Your task to perform on an android device: Open calendar and show me the second week of next month Image 0: 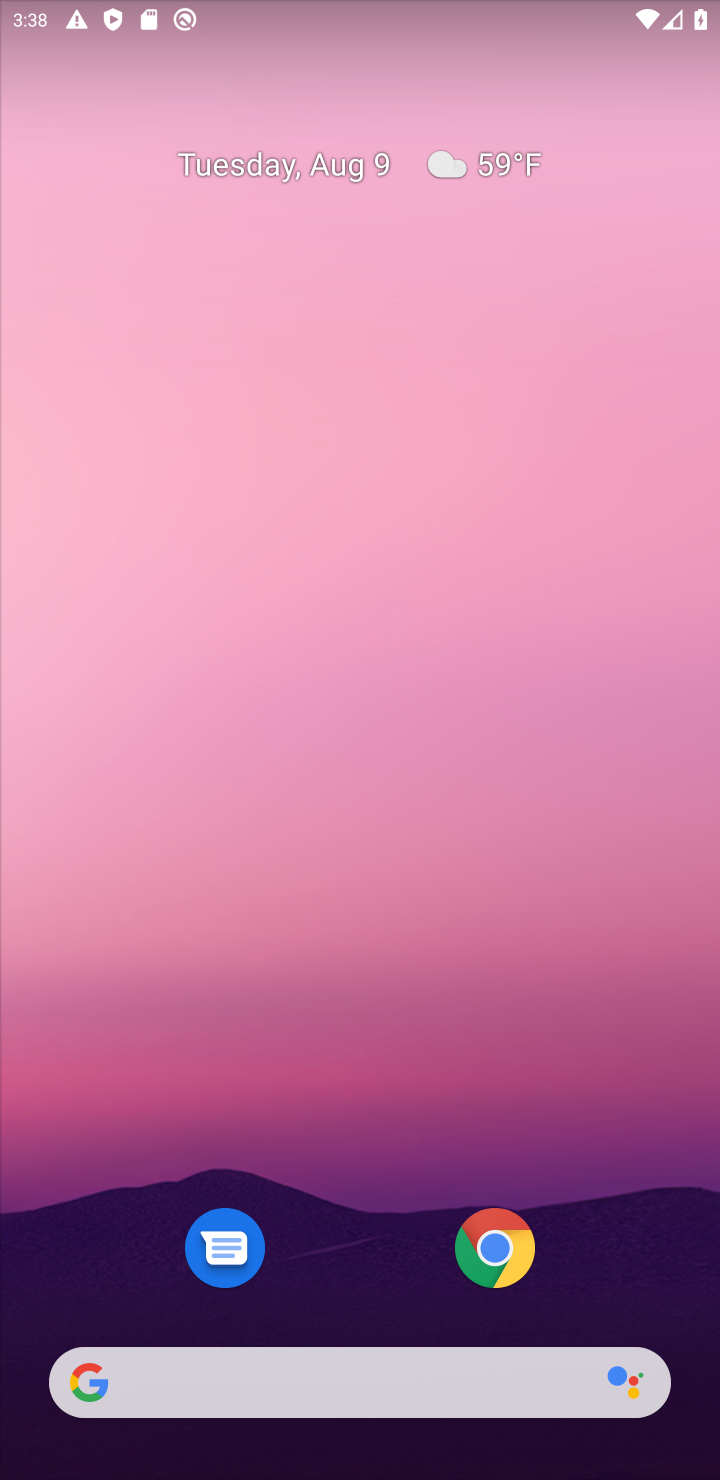
Step 0: drag from (361, 1152) to (231, 122)
Your task to perform on an android device: Open calendar and show me the second week of next month Image 1: 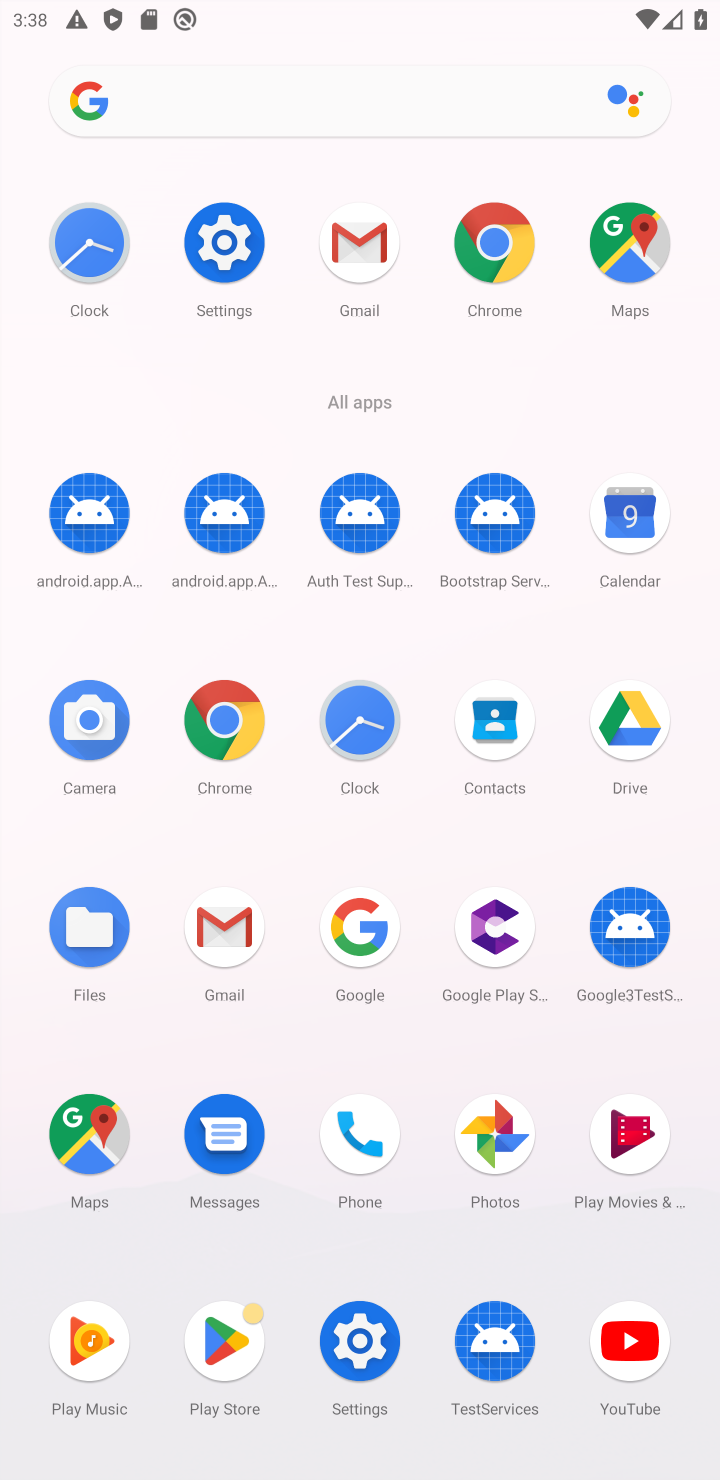
Step 1: click (637, 516)
Your task to perform on an android device: Open calendar and show me the second week of next month Image 2: 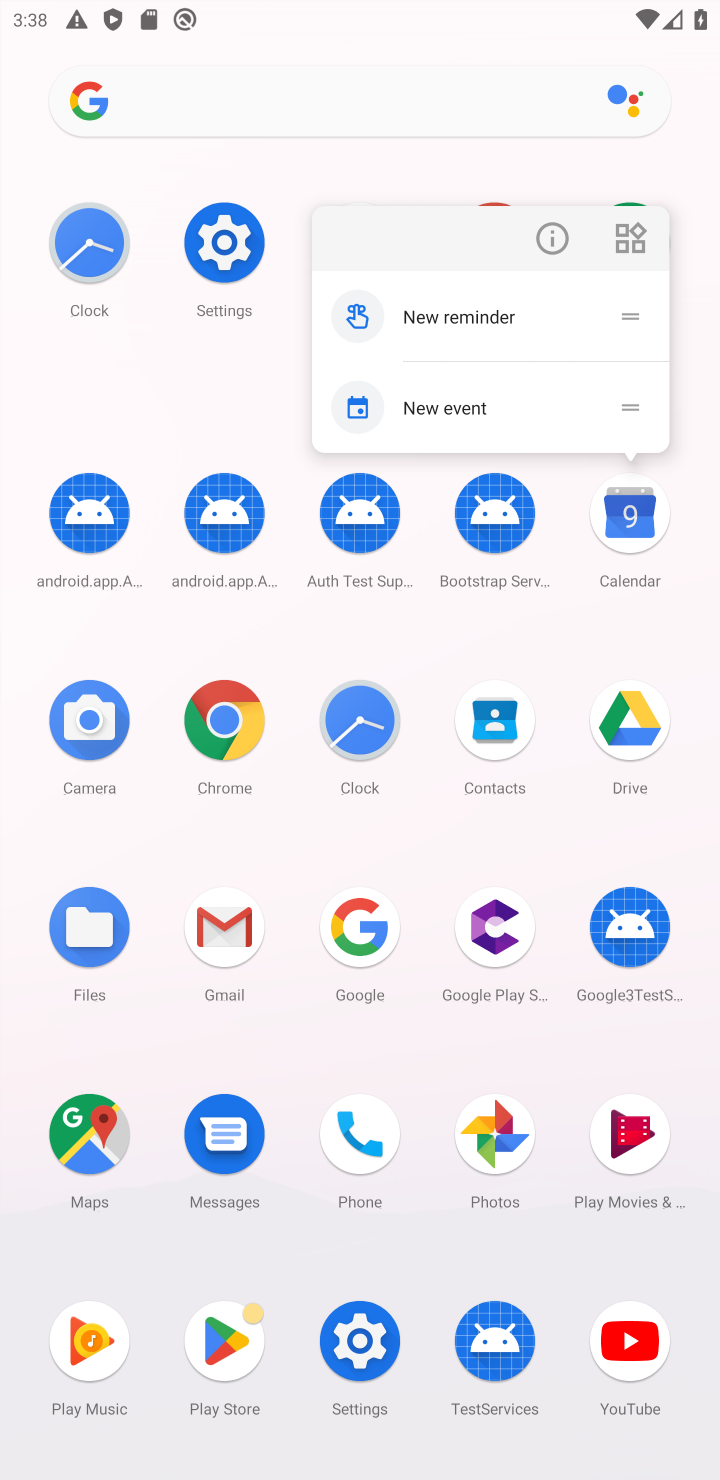
Step 2: click (637, 516)
Your task to perform on an android device: Open calendar and show me the second week of next month Image 3: 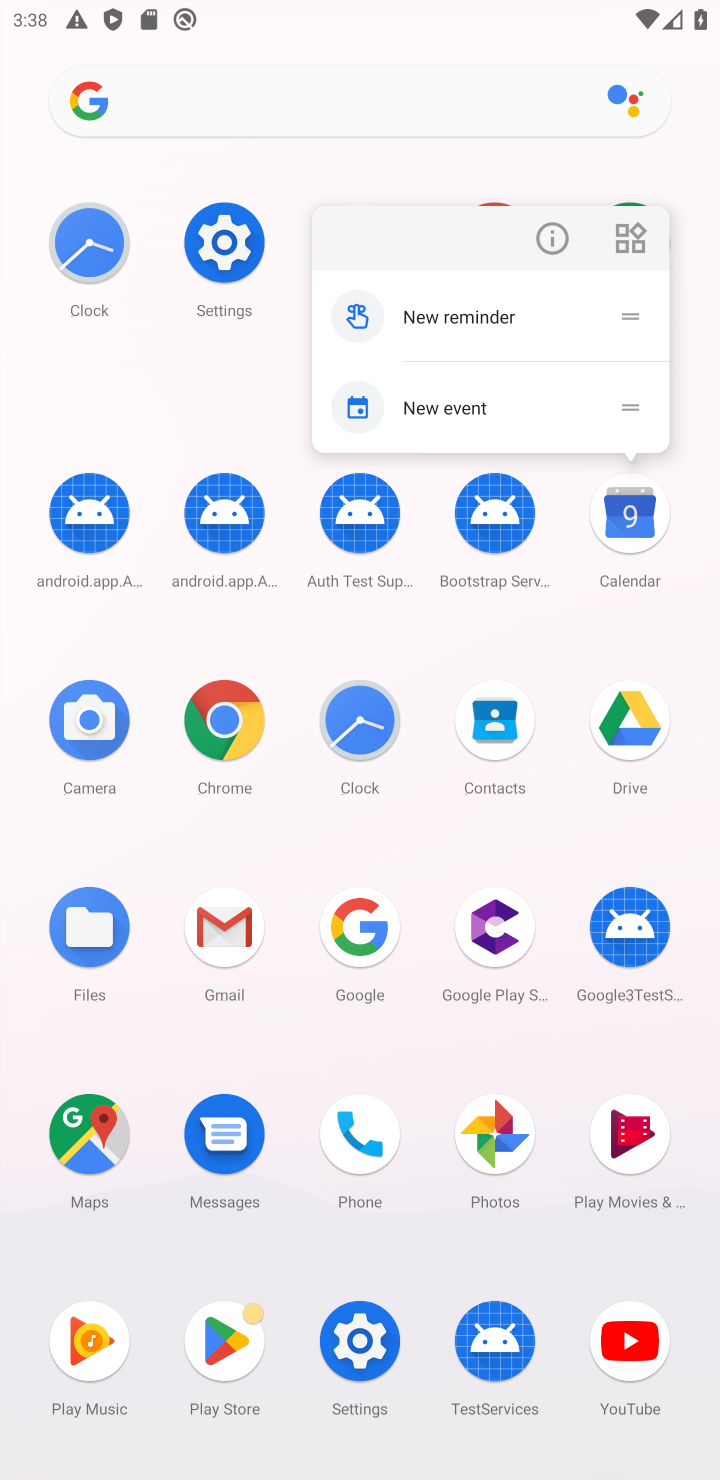
Step 3: click (637, 535)
Your task to perform on an android device: Open calendar and show me the second week of next month Image 4: 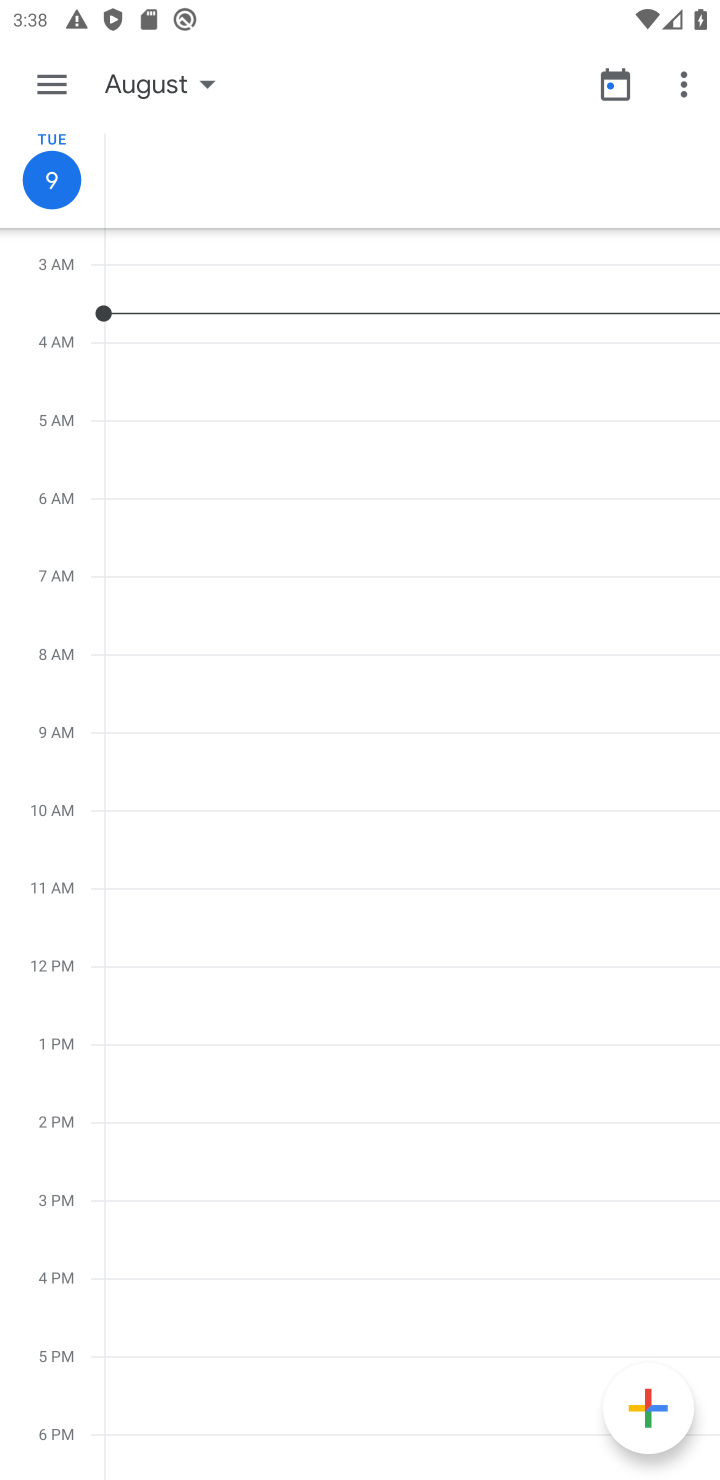
Step 4: click (169, 80)
Your task to perform on an android device: Open calendar and show me the second week of next month Image 5: 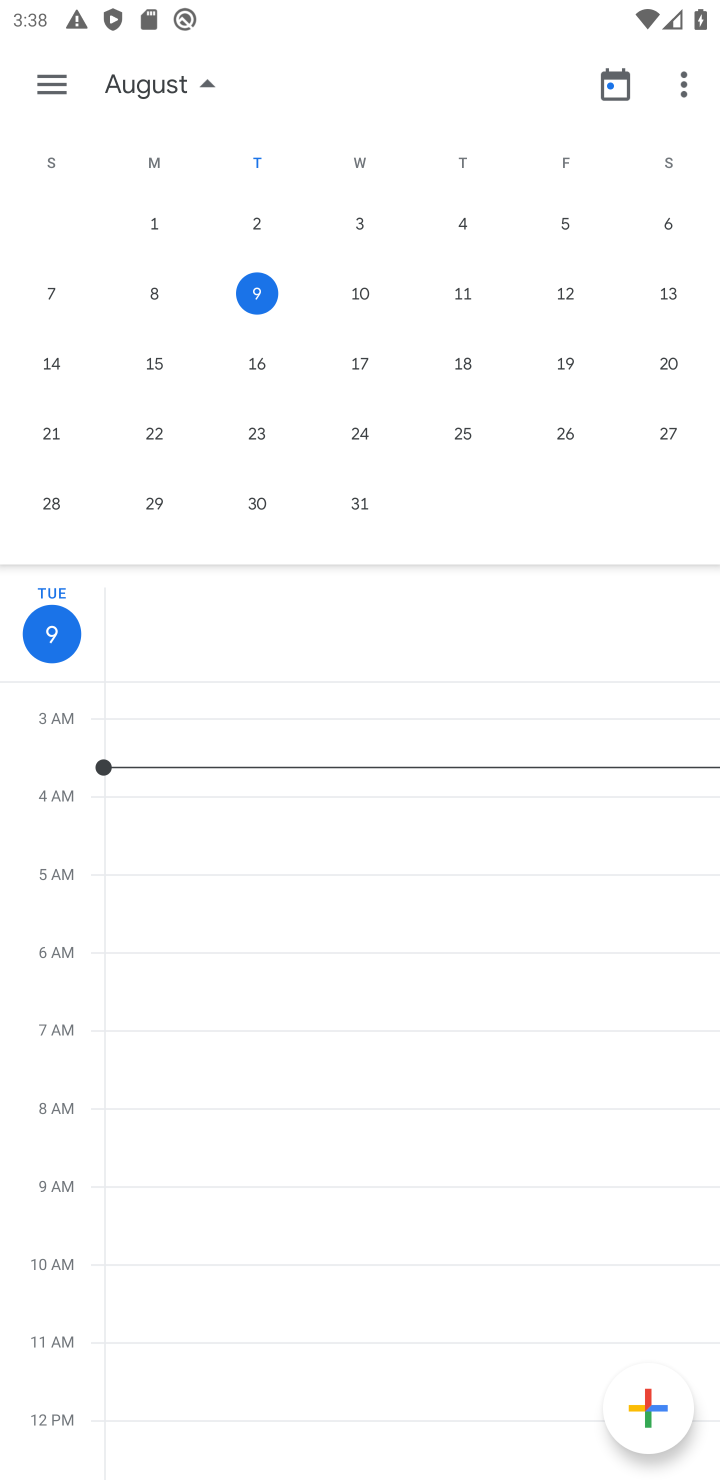
Step 5: drag from (620, 369) to (7, 369)
Your task to perform on an android device: Open calendar and show me the second week of next month Image 6: 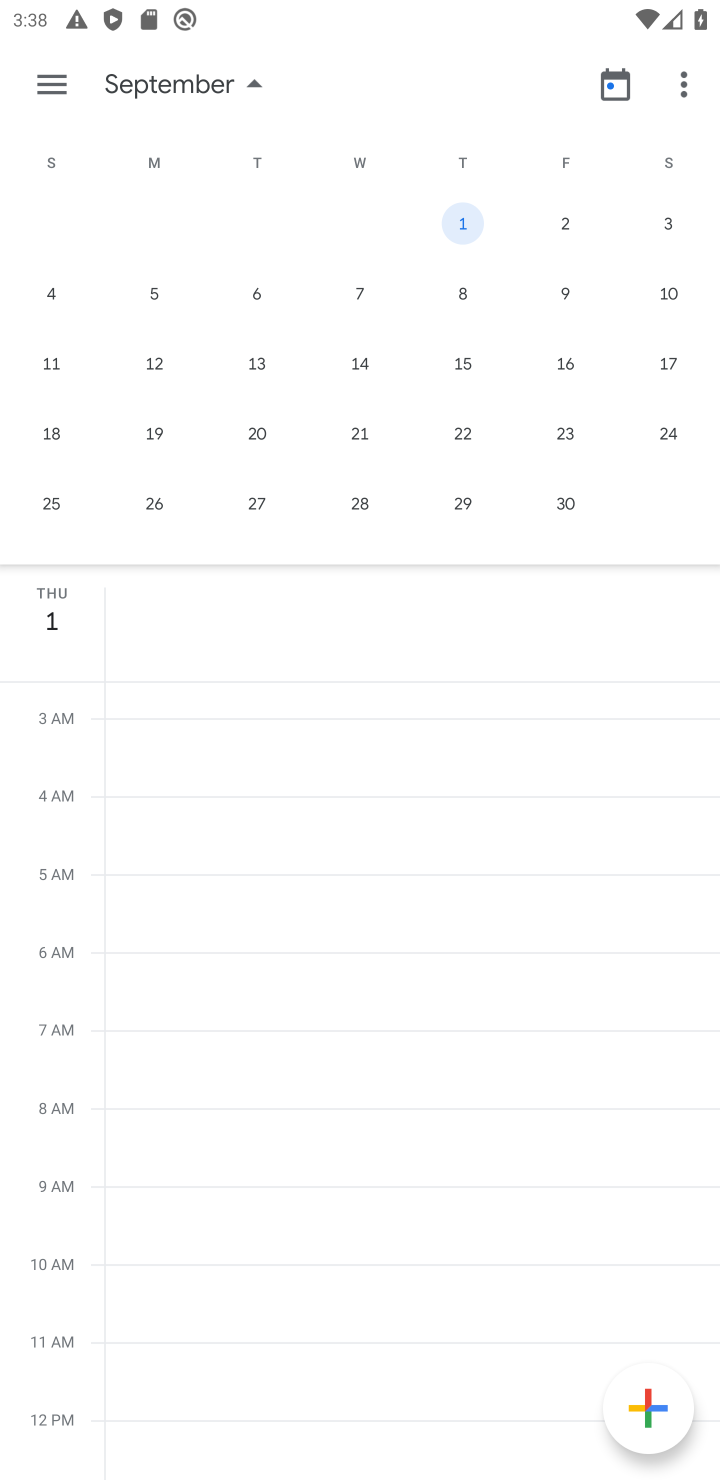
Step 6: click (257, 360)
Your task to perform on an android device: Open calendar and show me the second week of next month Image 7: 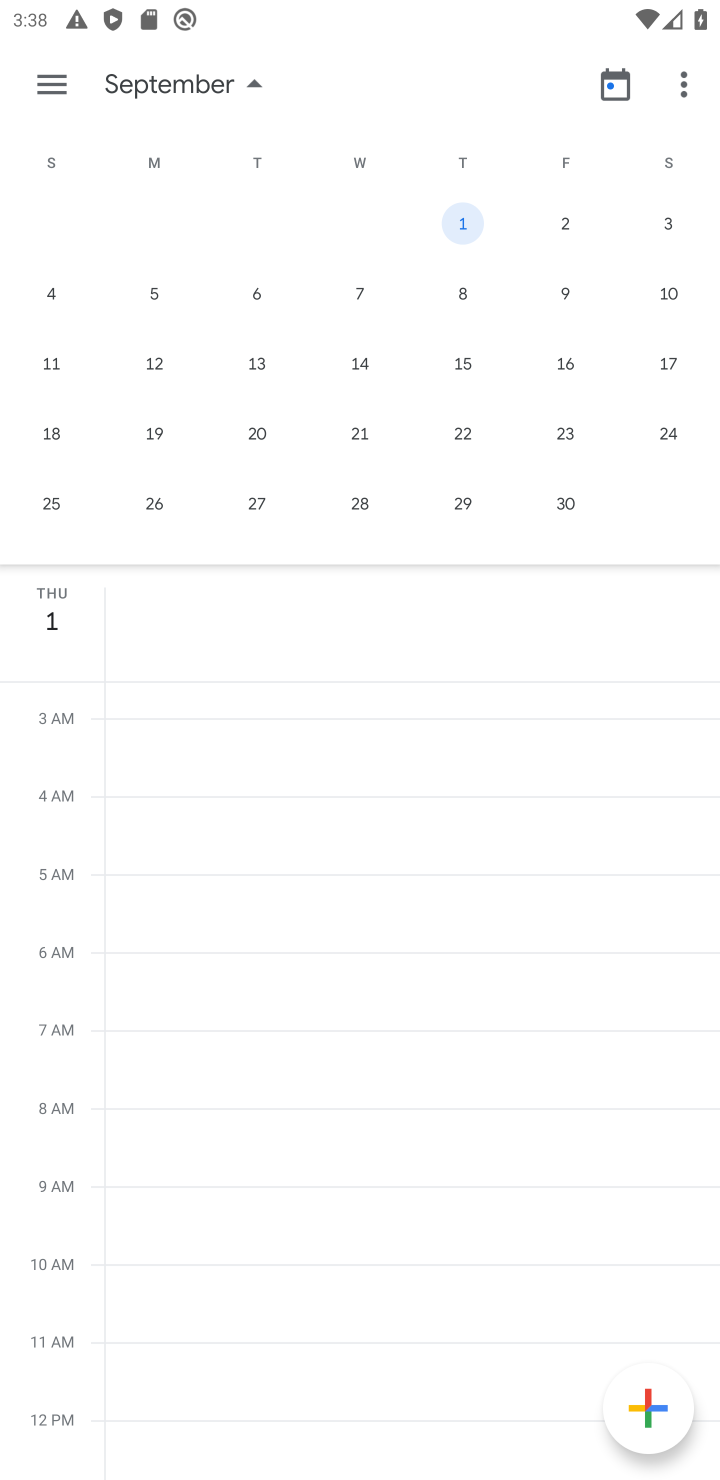
Step 7: click (259, 347)
Your task to perform on an android device: Open calendar and show me the second week of next month Image 8: 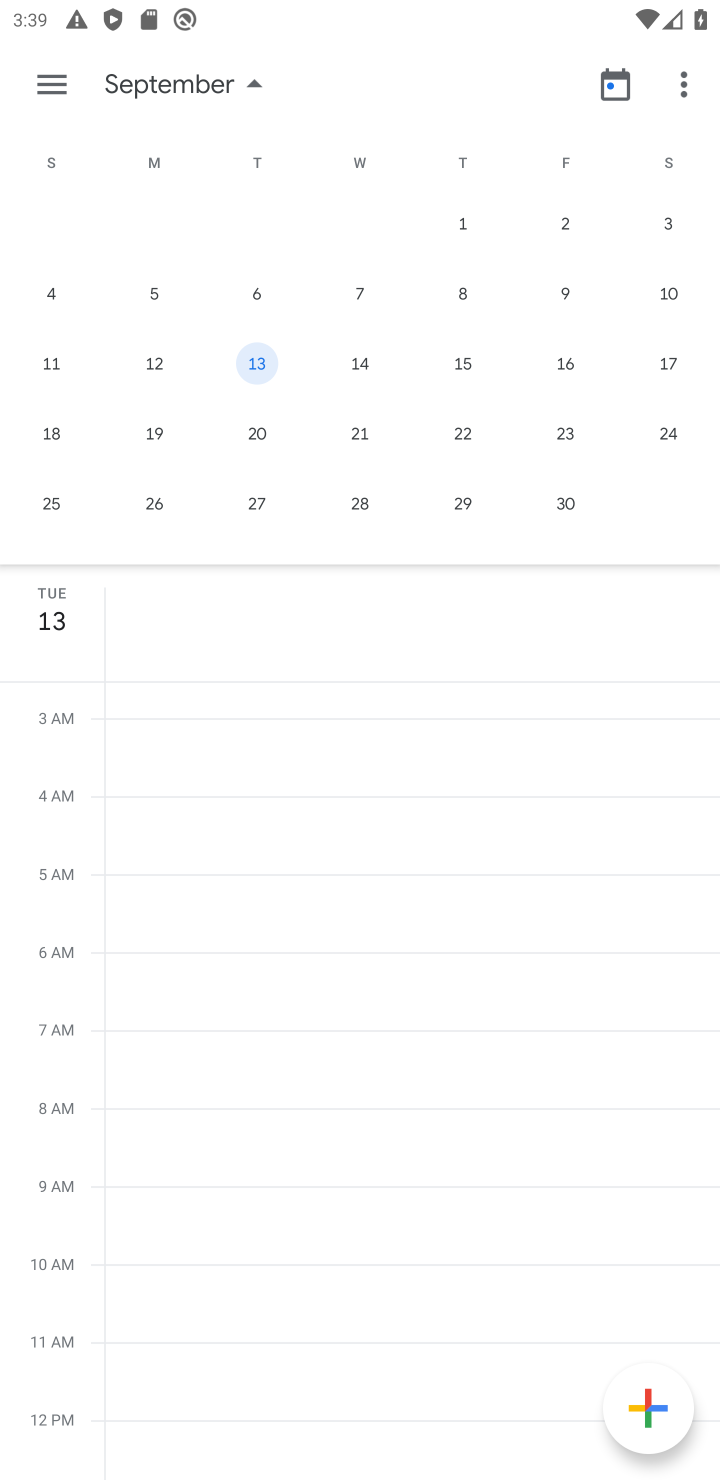
Step 8: click (35, 74)
Your task to perform on an android device: Open calendar and show me the second week of next month Image 9: 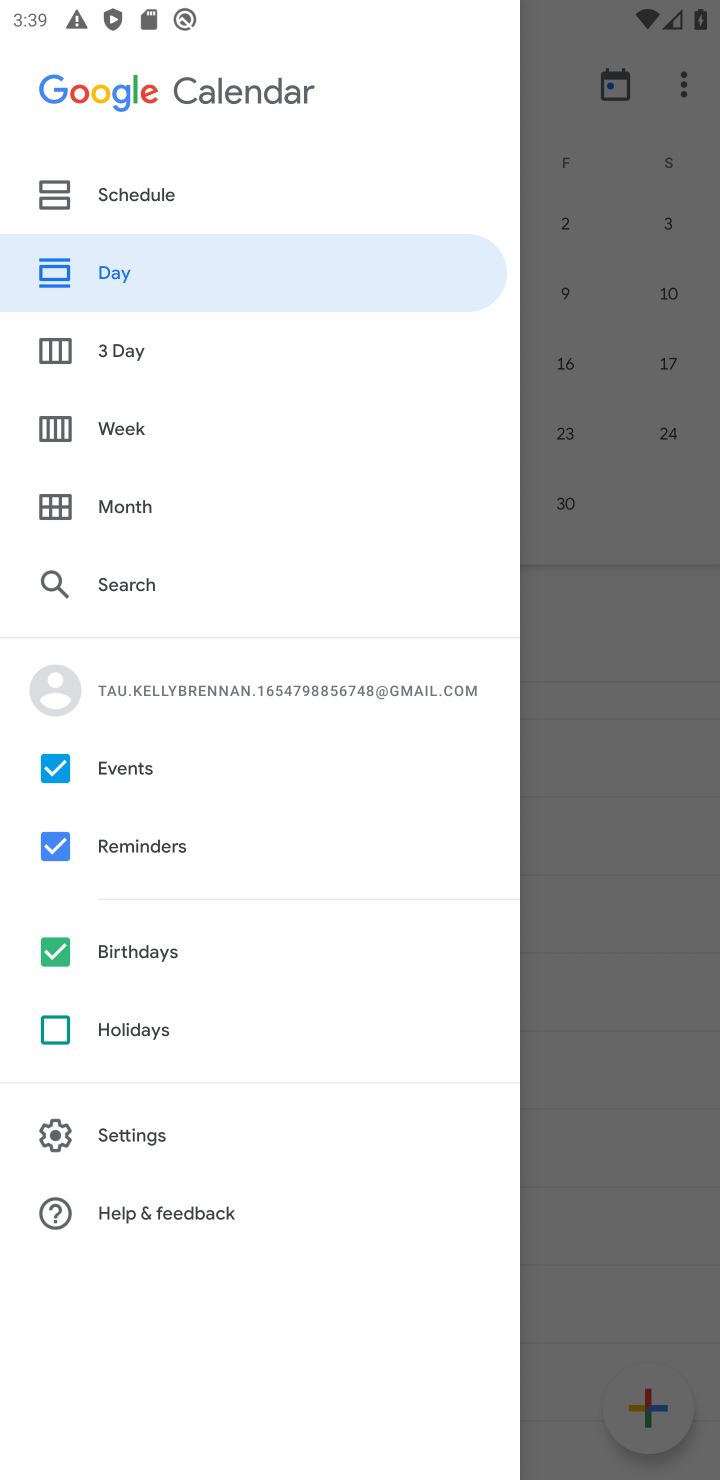
Step 9: click (156, 426)
Your task to perform on an android device: Open calendar and show me the second week of next month Image 10: 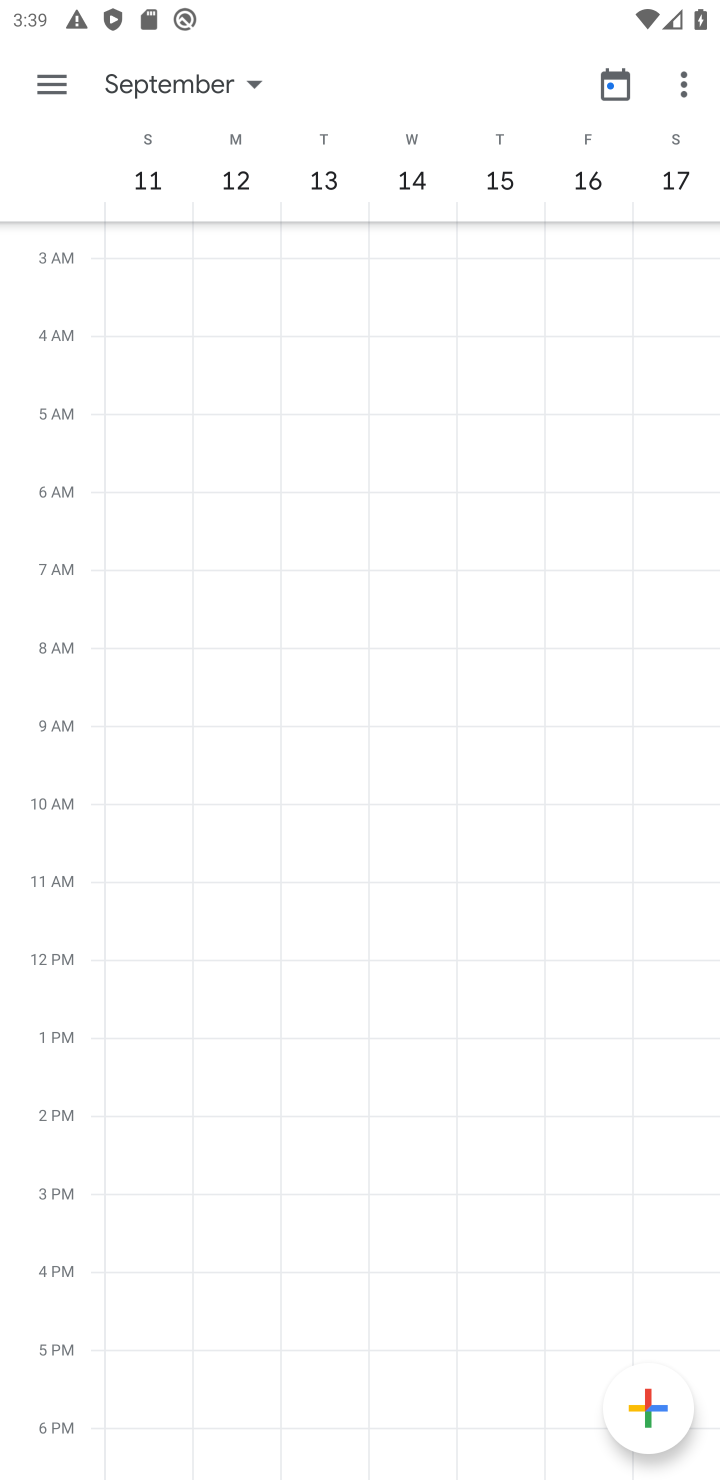
Step 10: task complete